Your task to perform on an android device: clear history in the chrome app Image 0: 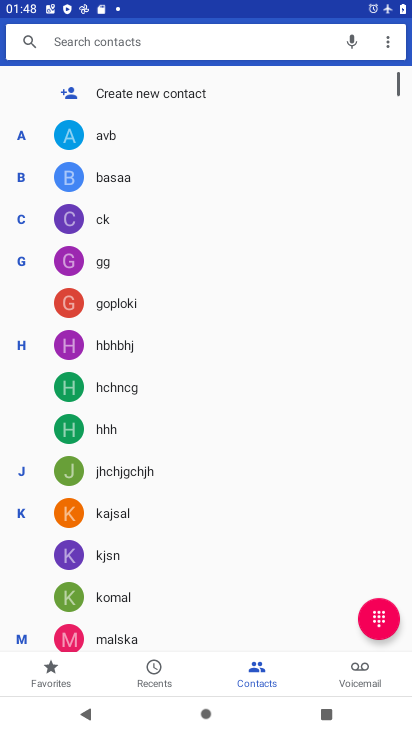
Step 0: press home button
Your task to perform on an android device: clear history in the chrome app Image 1: 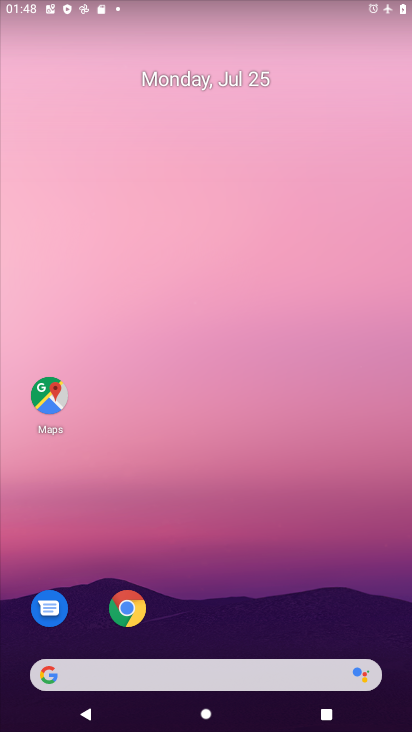
Step 1: drag from (195, 648) to (188, 61)
Your task to perform on an android device: clear history in the chrome app Image 2: 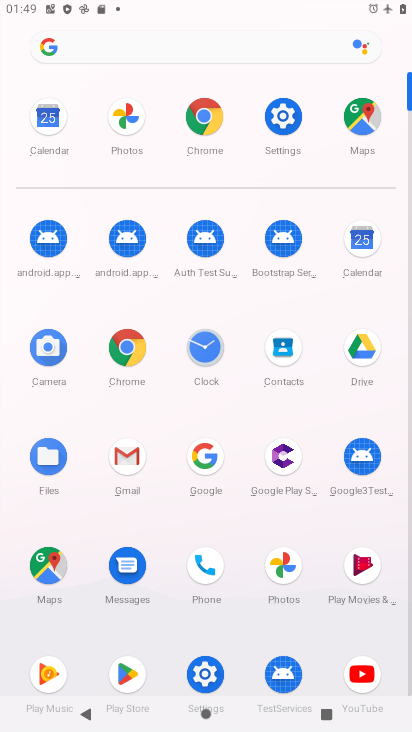
Step 2: click (209, 133)
Your task to perform on an android device: clear history in the chrome app Image 3: 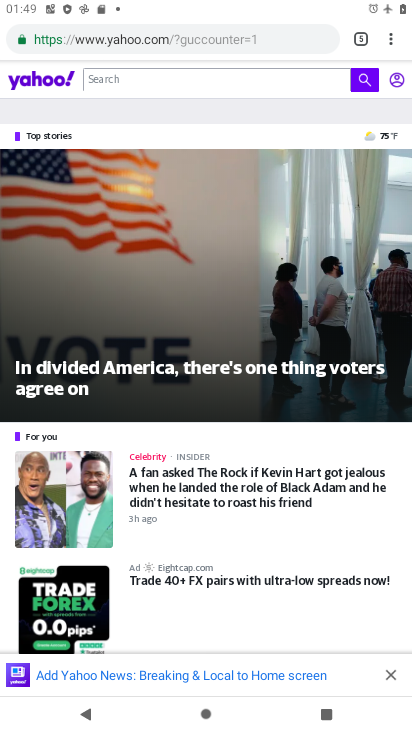
Step 3: click (390, 36)
Your task to perform on an android device: clear history in the chrome app Image 4: 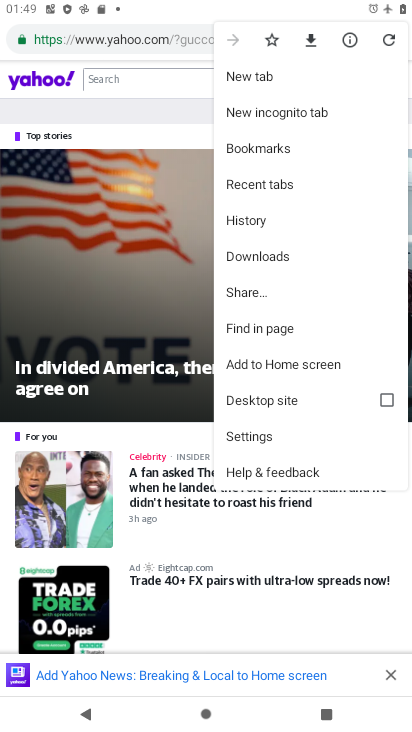
Step 4: click (255, 429)
Your task to perform on an android device: clear history in the chrome app Image 5: 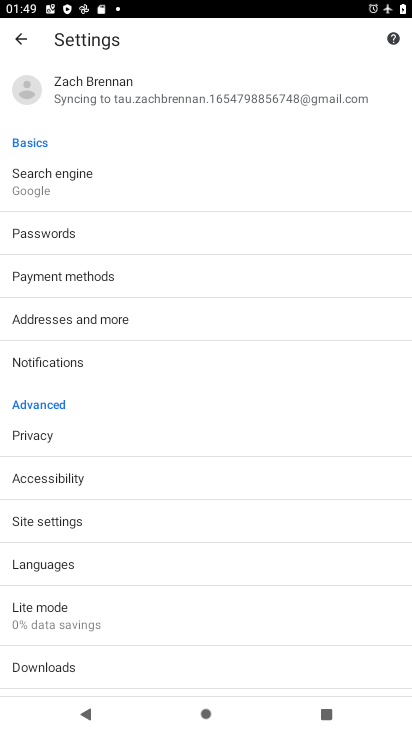
Step 5: drag from (74, 564) to (46, 280)
Your task to perform on an android device: clear history in the chrome app Image 6: 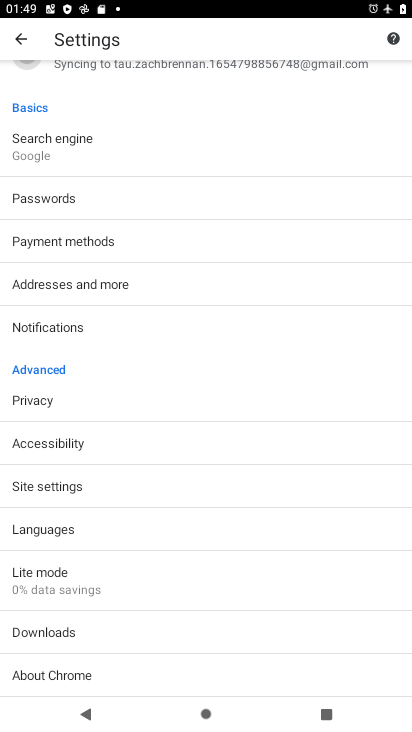
Step 6: click (49, 496)
Your task to perform on an android device: clear history in the chrome app Image 7: 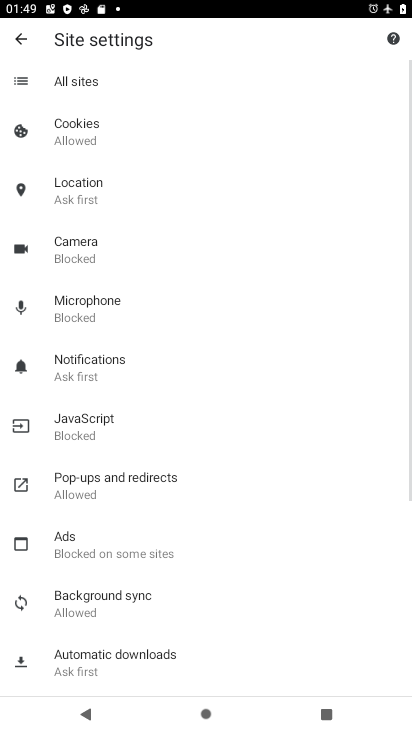
Step 7: click (22, 40)
Your task to perform on an android device: clear history in the chrome app Image 8: 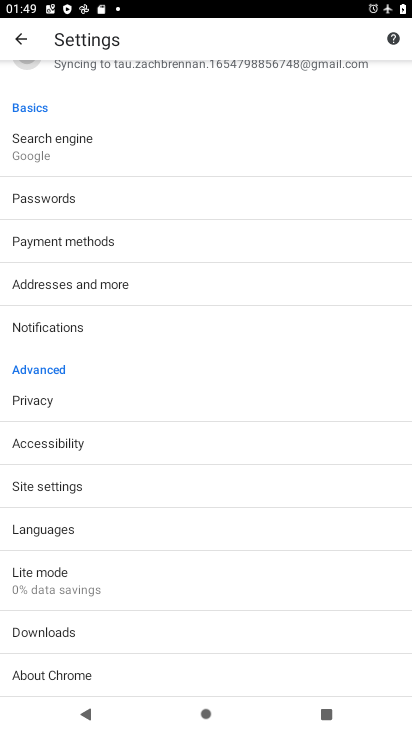
Step 8: click (27, 392)
Your task to perform on an android device: clear history in the chrome app Image 9: 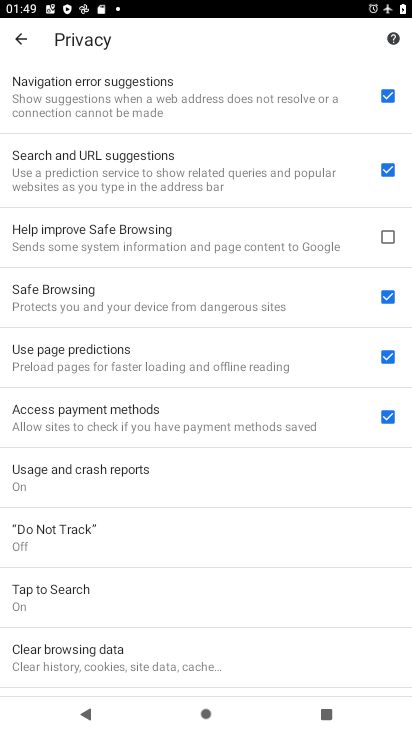
Step 9: click (112, 664)
Your task to perform on an android device: clear history in the chrome app Image 10: 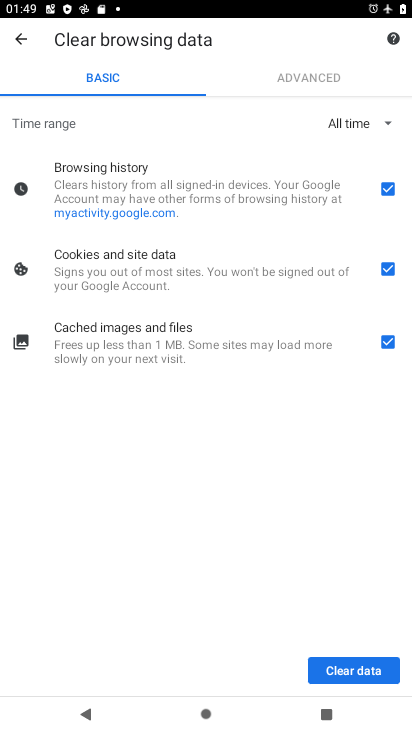
Step 10: click (330, 659)
Your task to perform on an android device: clear history in the chrome app Image 11: 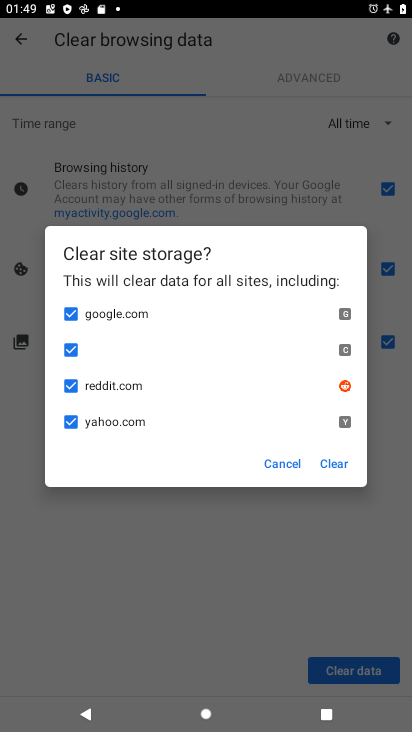
Step 11: click (345, 466)
Your task to perform on an android device: clear history in the chrome app Image 12: 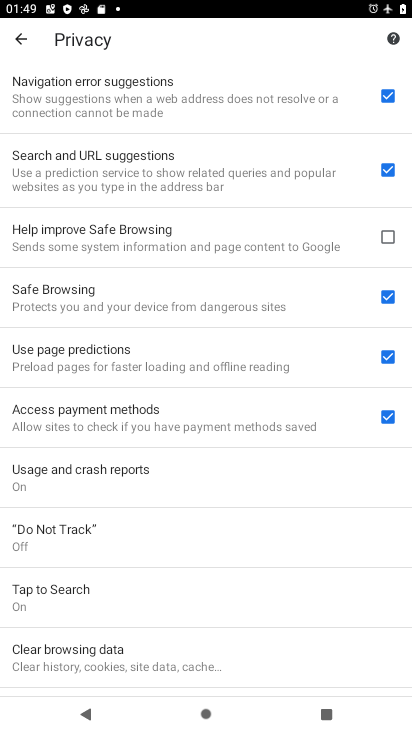
Step 12: task complete